Your task to perform on an android device: change timer sound Image 0: 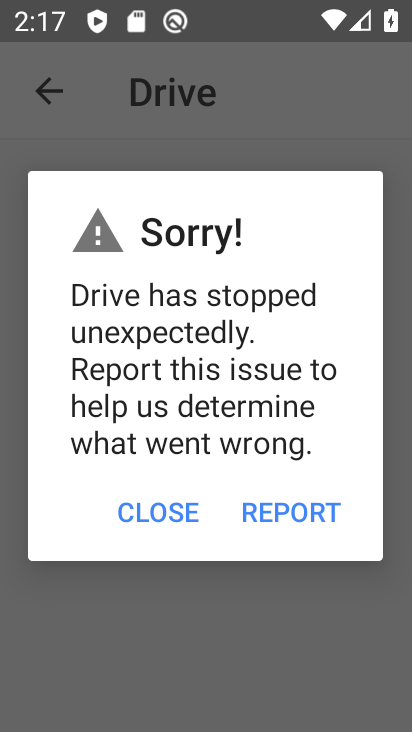
Step 0: press home button
Your task to perform on an android device: change timer sound Image 1: 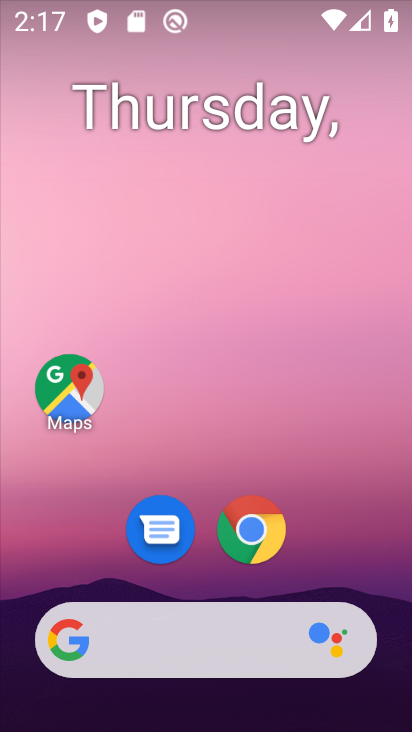
Step 1: drag from (344, 544) to (326, 115)
Your task to perform on an android device: change timer sound Image 2: 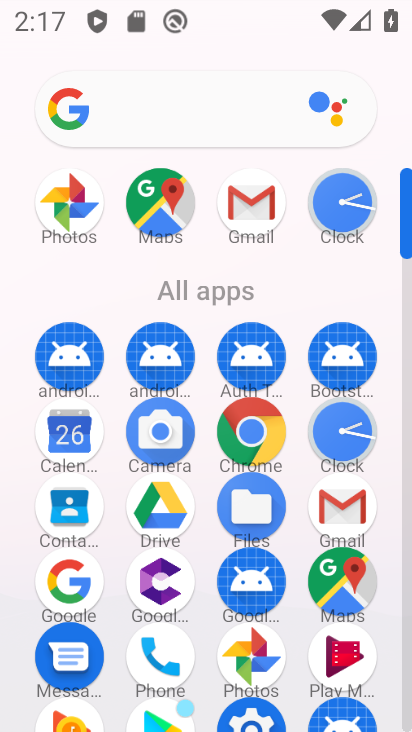
Step 2: drag from (303, 512) to (371, 260)
Your task to perform on an android device: change timer sound Image 3: 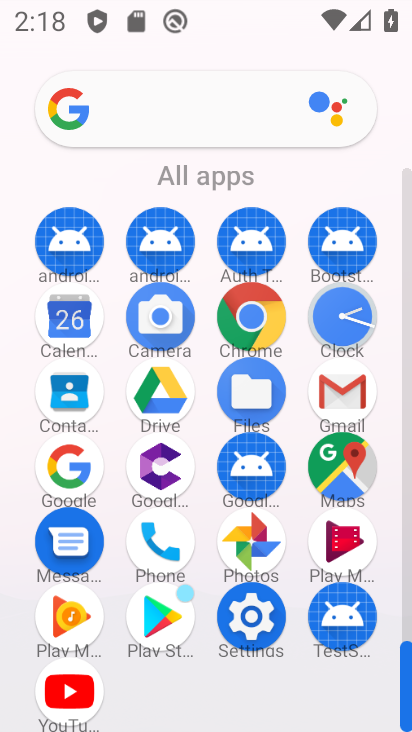
Step 3: click (339, 318)
Your task to perform on an android device: change timer sound Image 4: 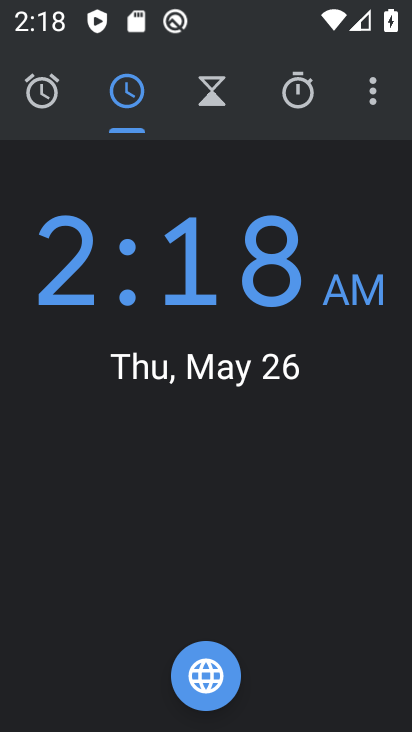
Step 4: click (378, 94)
Your task to perform on an android device: change timer sound Image 5: 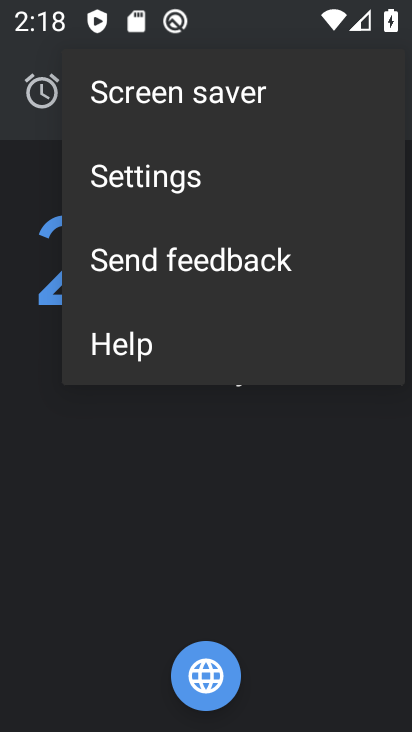
Step 5: click (166, 176)
Your task to perform on an android device: change timer sound Image 6: 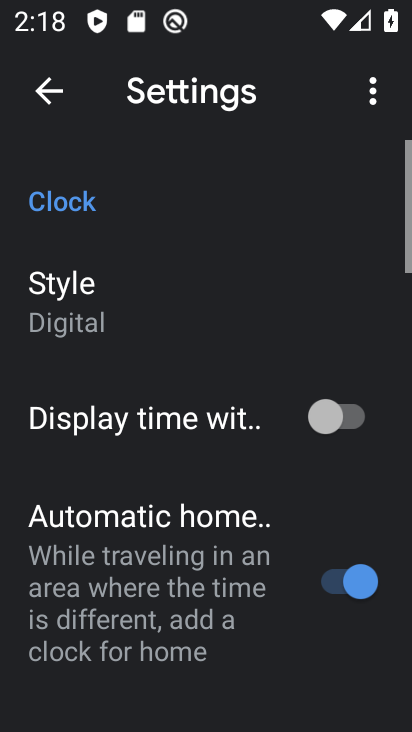
Step 6: drag from (263, 645) to (316, 322)
Your task to perform on an android device: change timer sound Image 7: 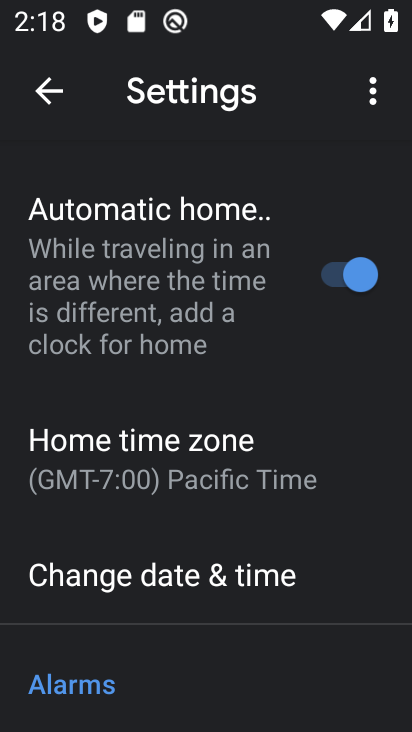
Step 7: drag from (196, 547) to (284, 409)
Your task to perform on an android device: change timer sound Image 8: 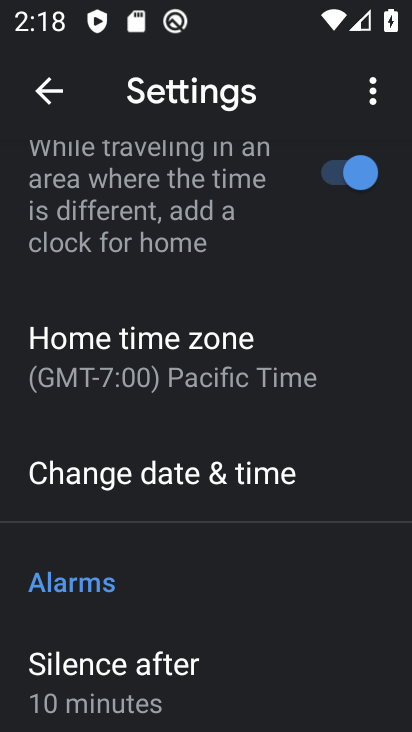
Step 8: drag from (186, 570) to (289, 435)
Your task to perform on an android device: change timer sound Image 9: 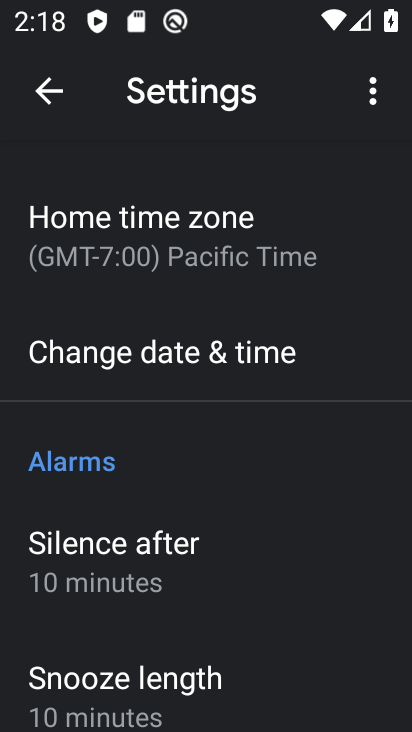
Step 9: drag from (207, 600) to (337, 390)
Your task to perform on an android device: change timer sound Image 10: 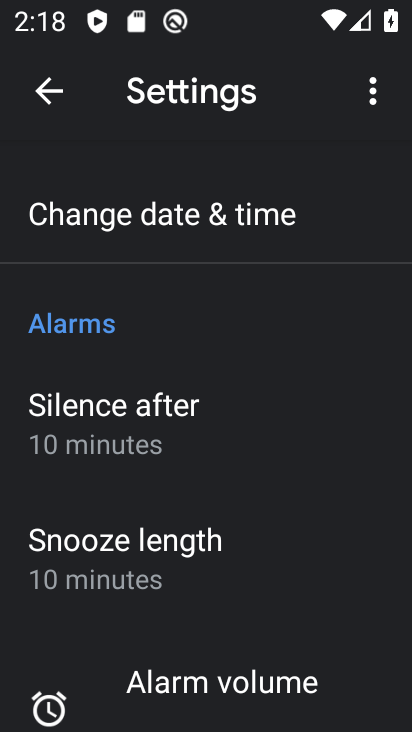
Step 10: drag from (231, 624) to (341, 472)
Your task to perform on an android device: change timer sound Image 11: 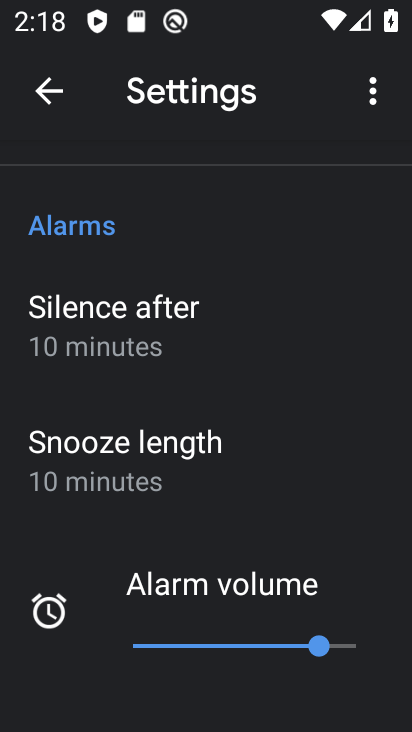
Step 11: drag from (187, 674) to (277, 526)
Your task to perform on an android device: change timer sound Image 12: 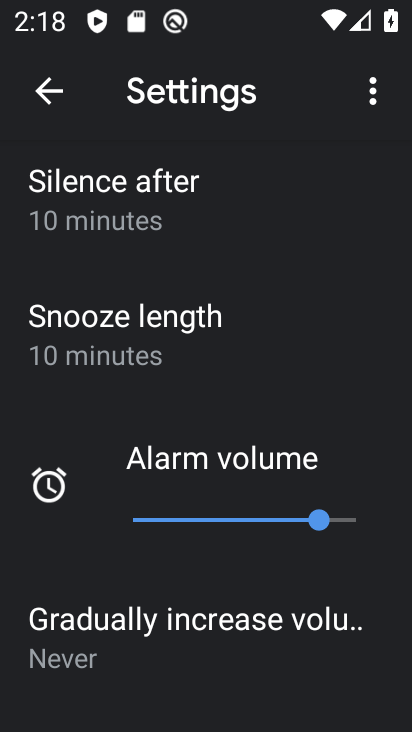
Step 12: drag from (194, 655) to (314, 452)
Your task to perform on an android device: change timer sound Image 13: 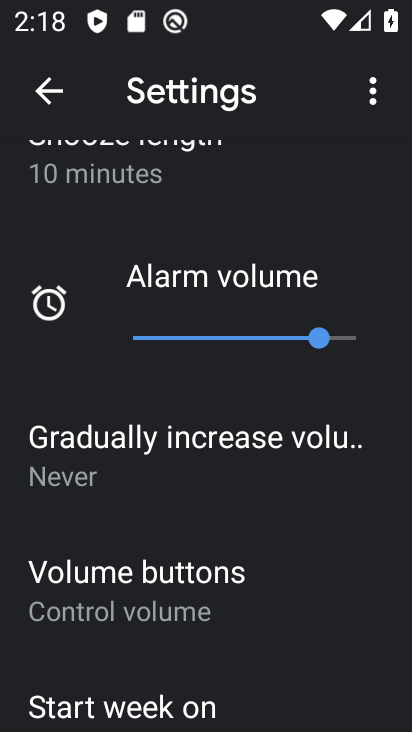
Step 13: drag from (160, 658) to (263, 499)
Your task to perform on an android device: change timer sound Image 14: 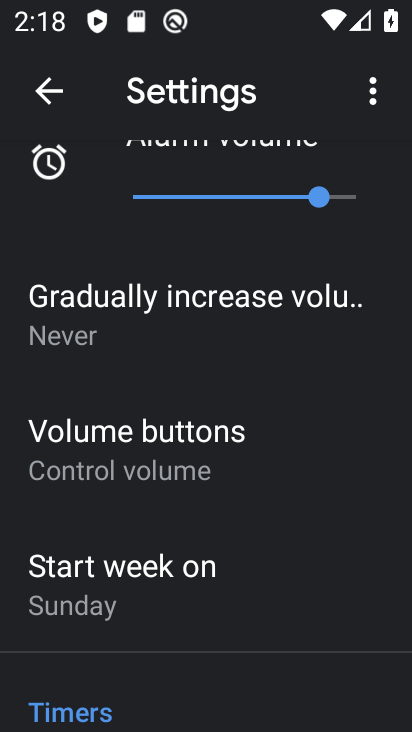
Step 14: drag from (153, 674) to (253, 471)
Your task to perform on an android device: change timer sound Image 15: 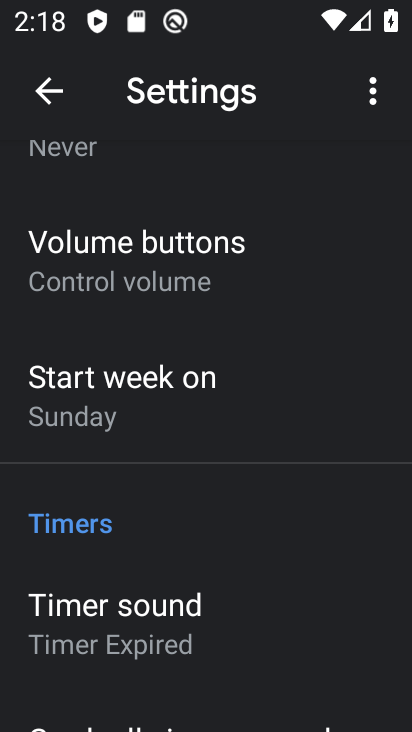
Step 15: click (173, 622)
Your task to perform on an android device: change timer sound Image 16: 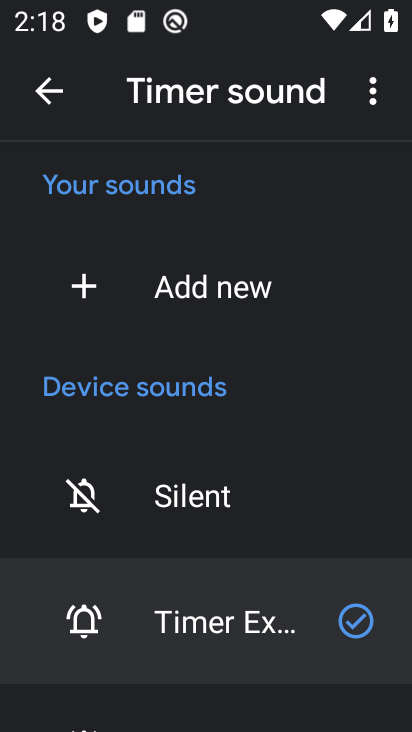
Step 16: drag from (230, 523) to (306, 295)
Your task to perform on an android device: change timer sound Image 17: 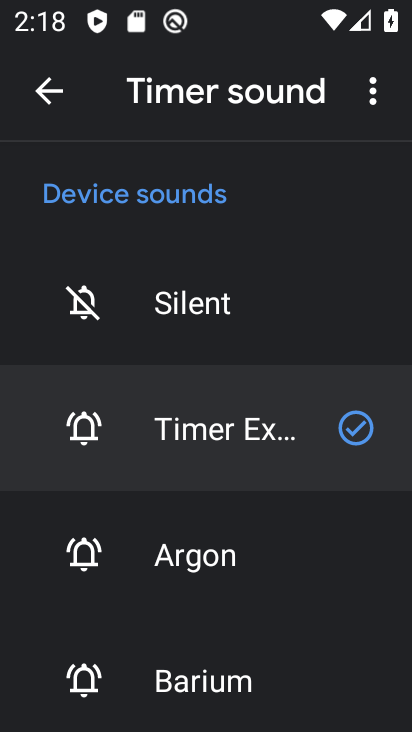
Step 17: drag from (200, 608) to (312, 417)
Your task to perform on an android device: change timer sound Image 18: 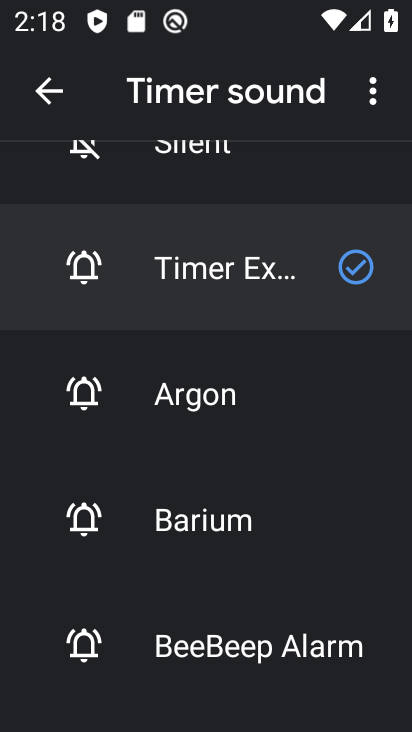
Step 18: drag from (220, 609) to (320, 433)
Your task to perform on an android device: change timer sound Image 19: 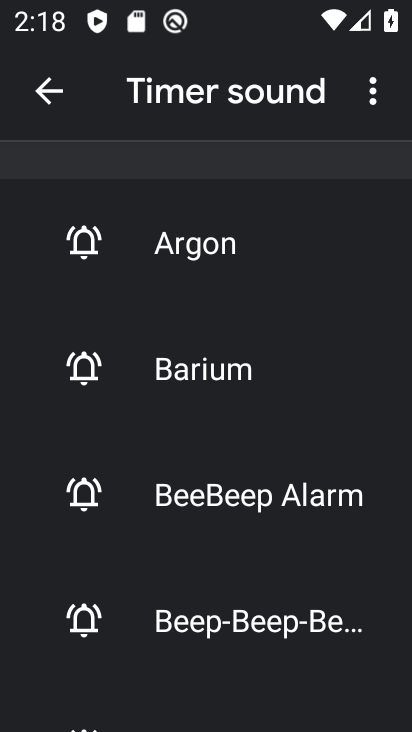
Step 19: click (251, 618)
Your task to perform on an android device: change timer sound Image 20: 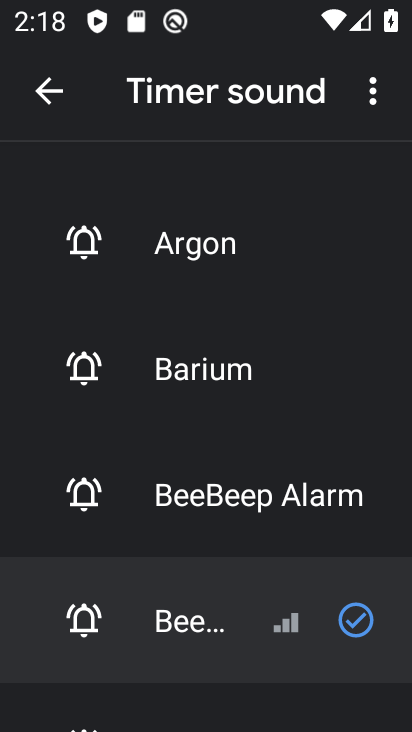
Step 20: task complete